Your task to perform on an android device: Open Chrome and go to settings Image 0: 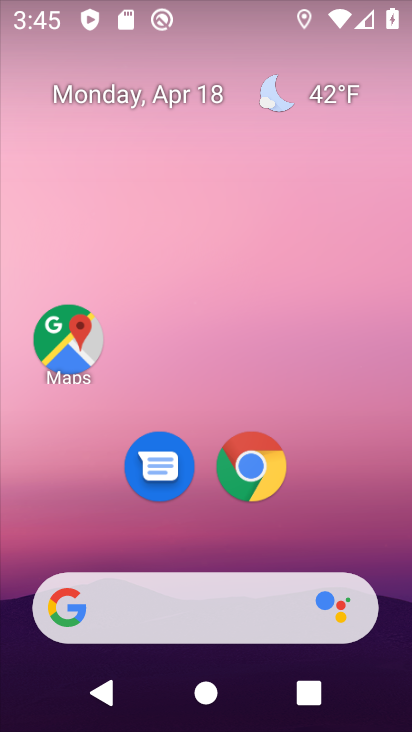
Step 0: click (245, 453)
Your task to perform on an android device: Open Chrome and go to settings Image 1: 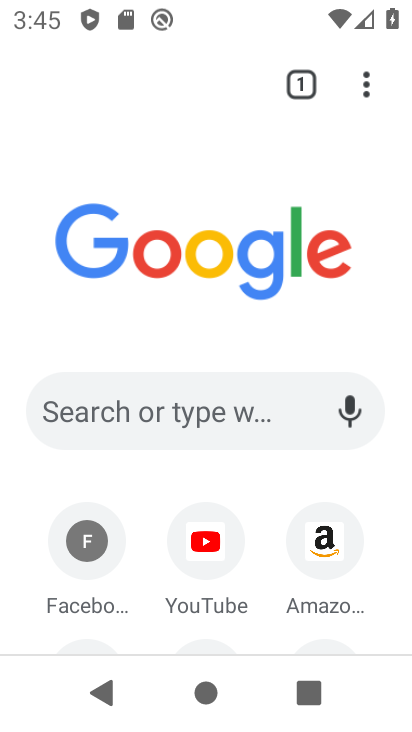
Step 1: click (367, 78)
Your task to perform on an android device: Open Chrome and go to settings Image 2: 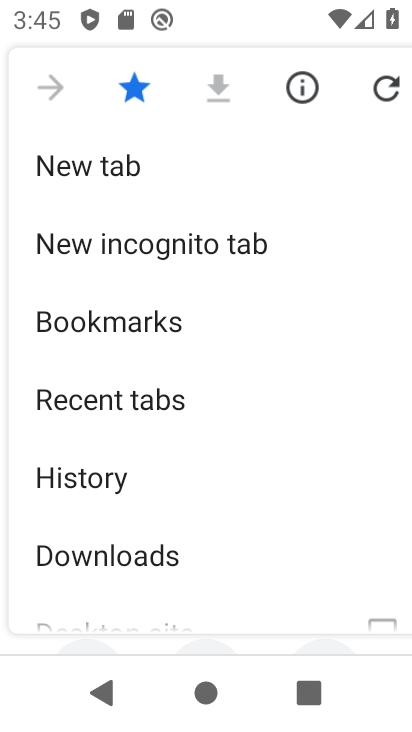
Step 2: drag from (245, 541) to (301, 190)
Your task to perform on an android device: Open Chrome and go to settings Image 3: 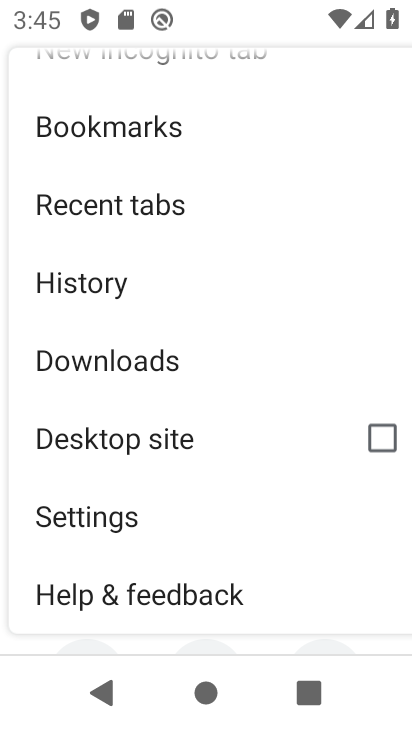
Step 3: click (85, 519)
Your task to perform on an android device: Open Chrome and go to settings Image 4: 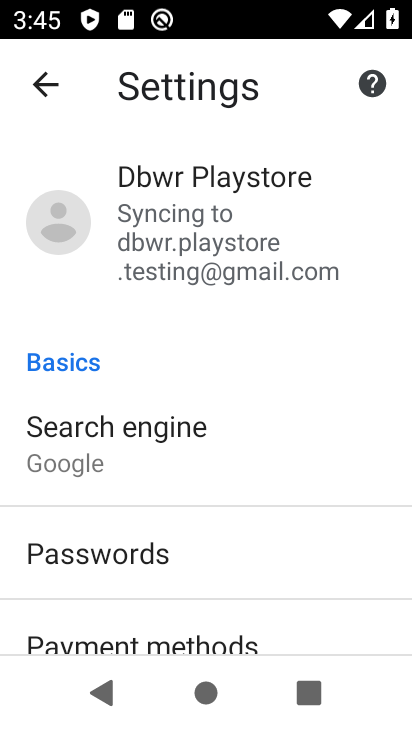
Step 4: task complete